Your task to perform on an android device: toggle priority inbox in the gmail app Image 0: 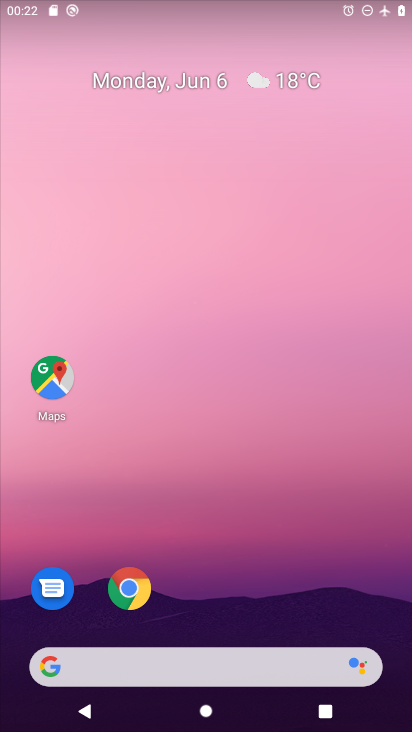
Step 0: drag from (350, 600) to (349, 474)
Your task to perform on an android device: toggle priority inbox in the gmail app Image 1: 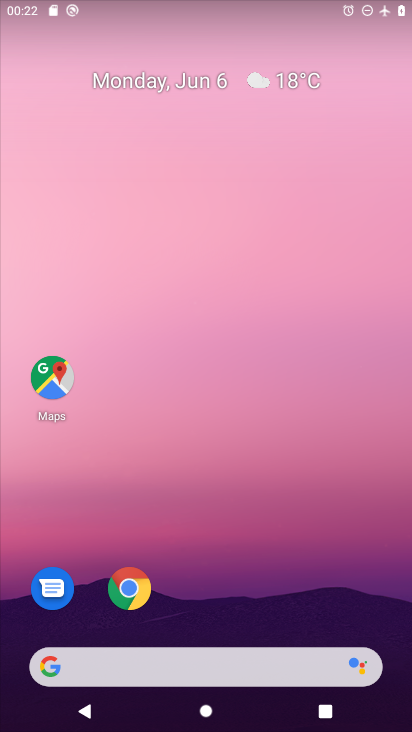
Step 1: drag from (339, 546) to (338, 272)
Your task to perform on an android device: toggle priority inbox in the gmail app Image 2: 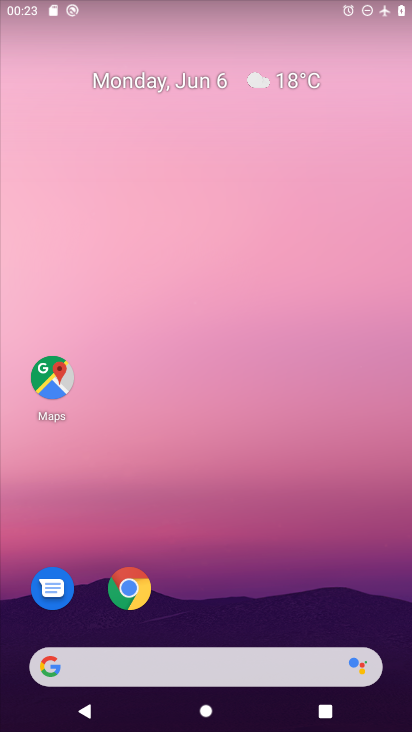
Step 2: drag from (338, 538) to (344, 90)
Your task to perform on an android device: toggle priority inbox in the gmail app Image 3: 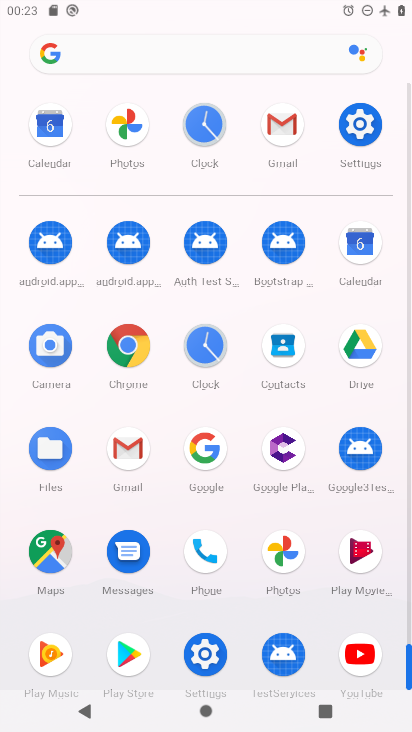
Step 3: click (128, 455)
Your task to perform on an android device: toggle priority inbox in the gmail app Image 4: 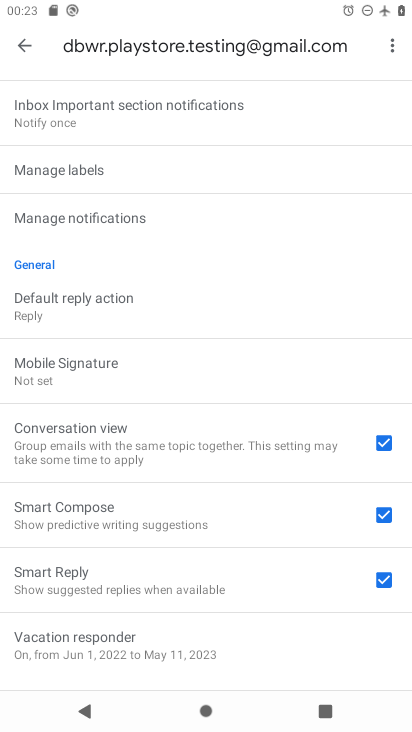
Step 4: task complete